Your task to perform on an android device: What's on my calendar today? Image 0: 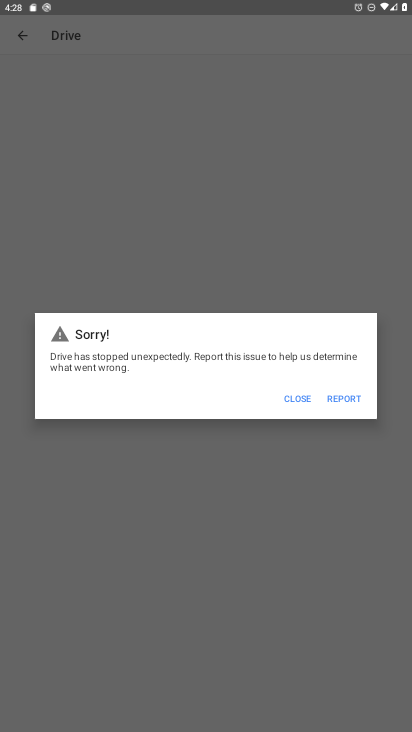
Step 0: press home button
Your task to perform on an android device: What's on my calendar today? Image 1: 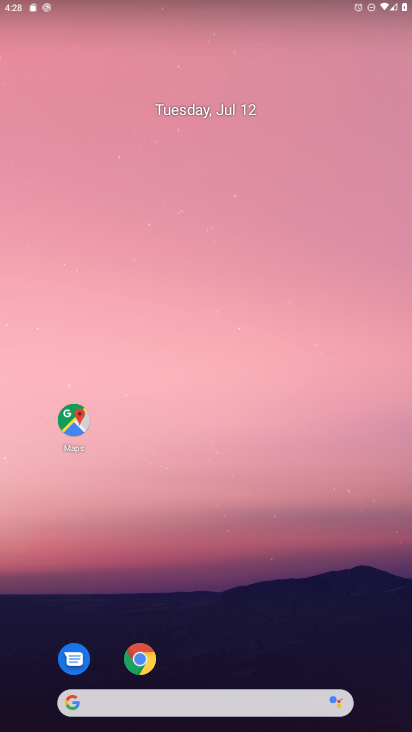
Step 1: drag from (182, 651) to (145, 168)
Your task to perform on an android device: What's on my calendar today? Image 2: 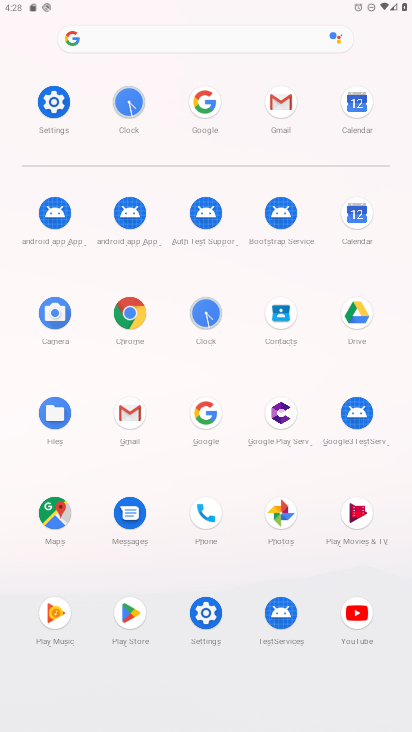
Step 2: click (352, 227)
Your task to perform on an android device: What's on my calendar today? Image 3: 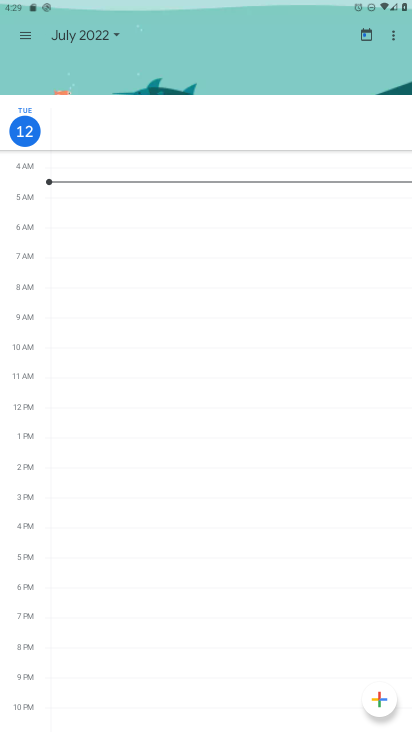
Step 3: task complete